Your task to perform on an android device: Open the calendar and show me this week's events? Image 0: 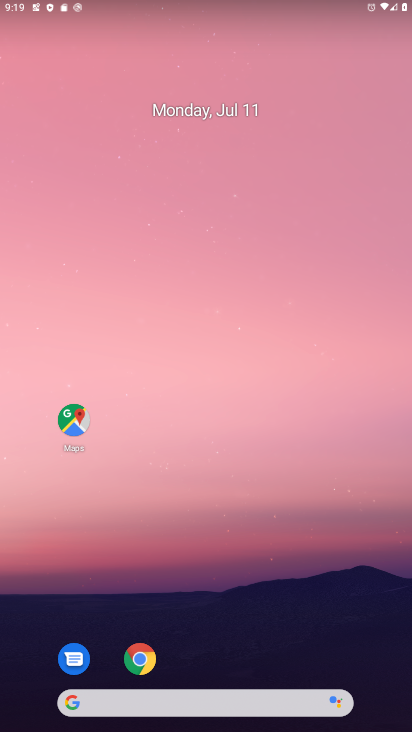
Step 0: drag from (227, 614) to (196, 37)
Your task to perform on an android device: Open the calendar and show me this week's events? Image 1: 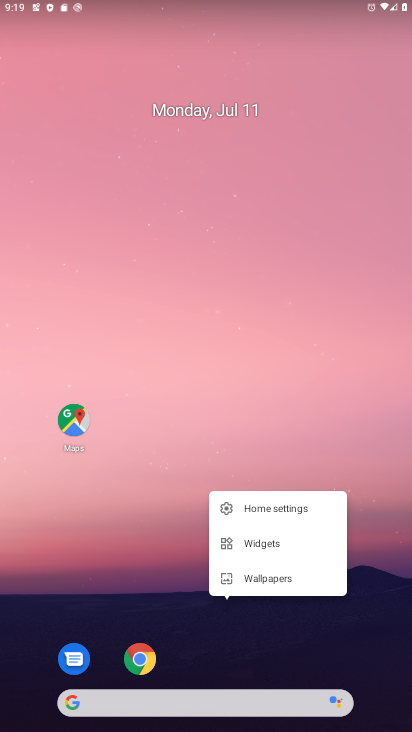
Step 1: click (170, 422)
Your task to perform on an android device: Open the calendar and show me this week's events? Image 2: 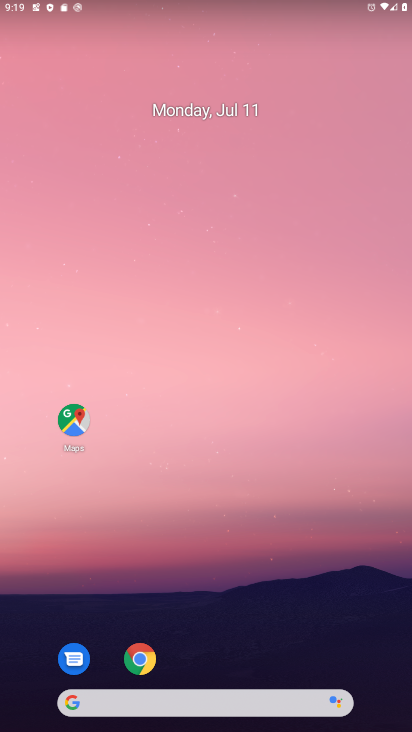
Step 2: drag from (265, 613) to (224, 205)
Your task to perform on an android device: Open the calendar and show me this week's events? Image 3: 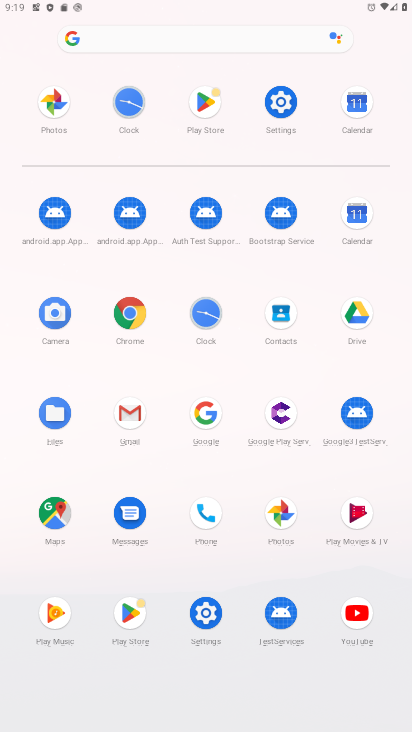
Step 3: click (364, 101)
Your task to perform on an android device: Open the calendar and show me this week's events? Image 4: 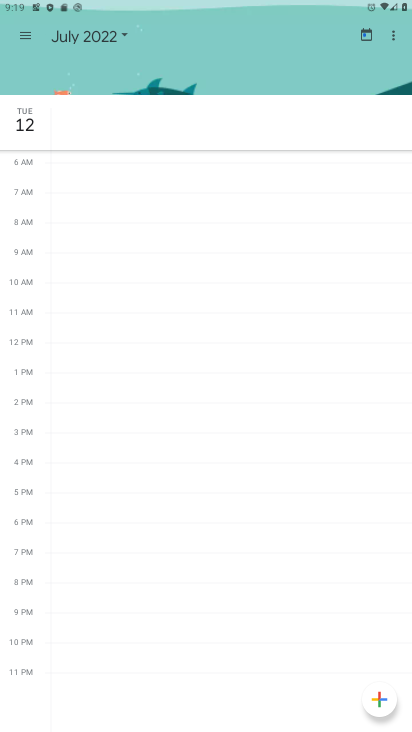
Step 4: click (24, 30)
Your task to perform on an android device: Open the calendar and show me this week's events? Image 5: 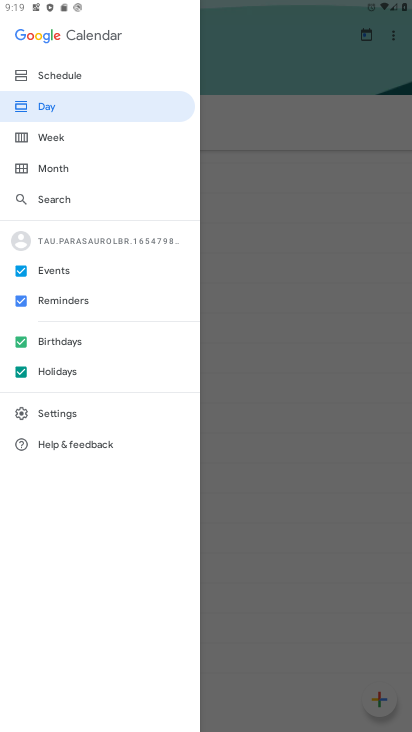
Step 5: click (50, 138)
Your task to perform on an android device: Open the calendar and show me this week's events? Image 6: 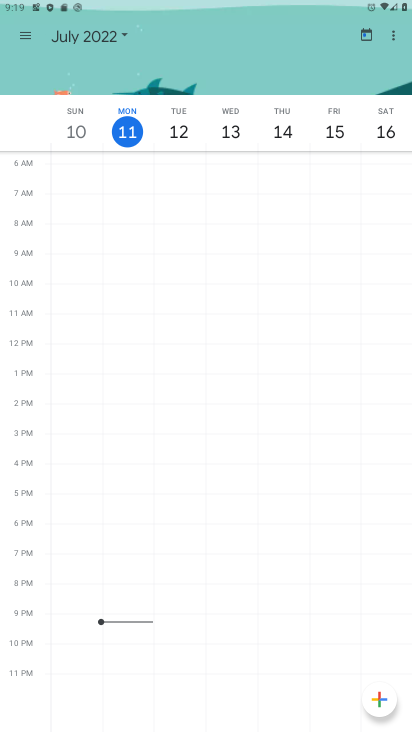
Step 6: click (123, 31)
Your task to perform on an android device: Open the calendar and show me this week's events? Image 7: 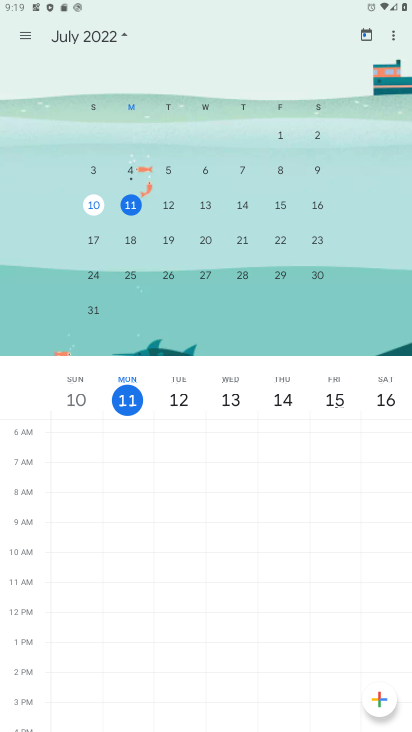
Step 7: task complete